Your task to perform on an android device: Show the shopping cart on amazon.com. Search for logitech g933 on amazon.com, select the first entry, and add it to the cart. Image 0: 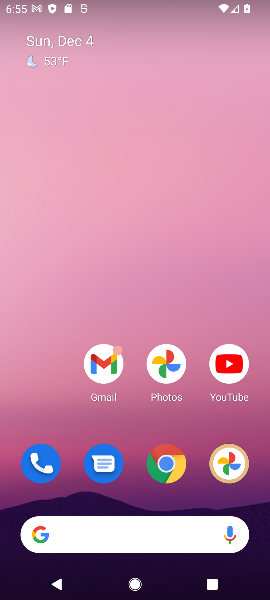
Step 0: click (134, 544)
Your task to perform on an android device: Show the shopping cart on amazon.com. Search for logitech g933 on amazon.com, select the first entry, and add it to the cart. Image 1: 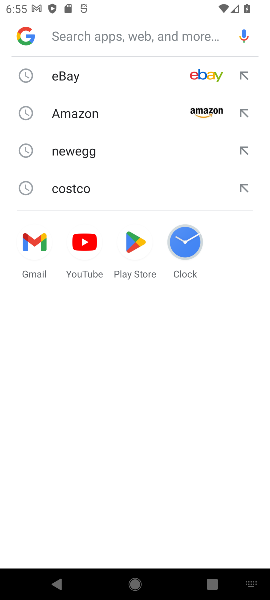
Step 1: type "amazon.com"
Your task to perform on an android device: Show the shopping cart on amazon.com. Search for logitech g933 on amazon.com, select the first entry, and add it to the cart. Image 2: 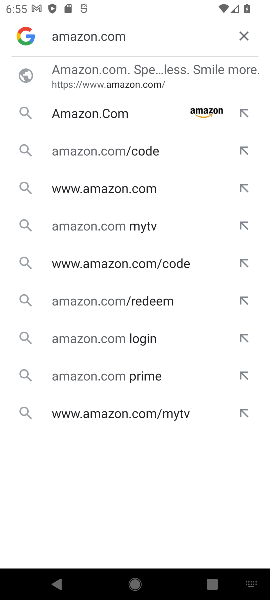
Step 2: click (143, 79)
Your task to perform on an android device: Show the shopping cart on amazon.com. Search for logitech g933 on amazon.com, select the first entry, and add it to the cart. Image 3: 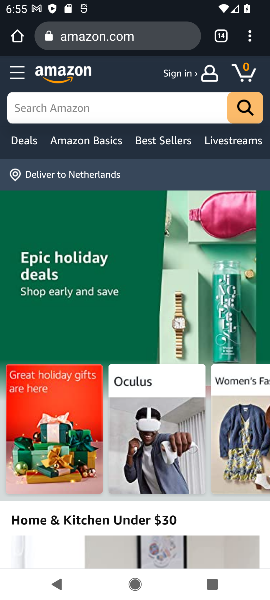
Step 3: click (149, 110)
Your task to perform on an android device: Show the shopping cart on amazon.com. Search for logitech g933 on amazon.com, select the first entry, and add it to the cart. Image 4: 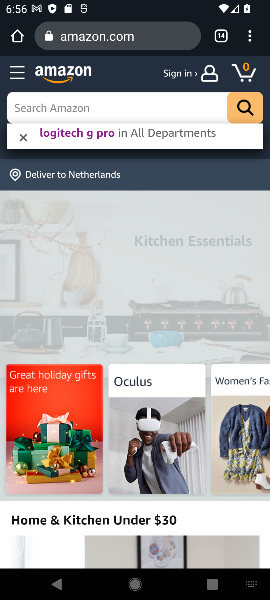
Step 4: type "logitech g933"
Your task to perform on an android device: Show the shopping cart on amazon.com. Search for logitech g933 on amazon.com, select the first entry, and add it to the cart. Image 5: 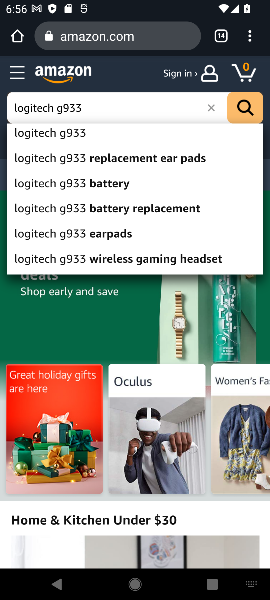
Step 5: click (241, 110)
Your task to perform on an android device: Show the shopping cart on amazon.com. Search for logitech g933 on amazon.com, select the first entry, and add it to the cart. Image 6: 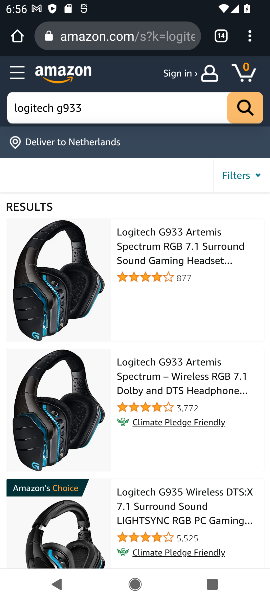
Step 6: click (200, 240)
Your task to perform on an android device: Show the shopping cart on amazon.com. Search for logitech g933 on amazon.com, select the first entry, and add it to the cart. Image 7: 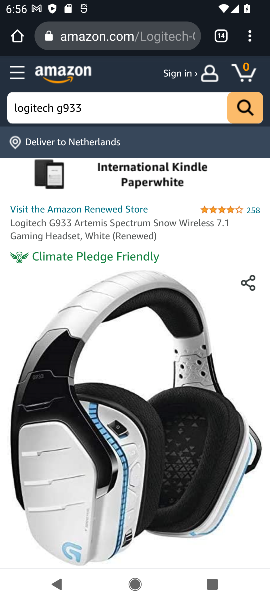
Step 7: drag from (195, 498) to (121, 158)
Your task to perform on an android device: Show the shopping cart on amazon.com. Search for logitech g933 on amazon.com, select the first entry, and add it to the cart. Image 8: 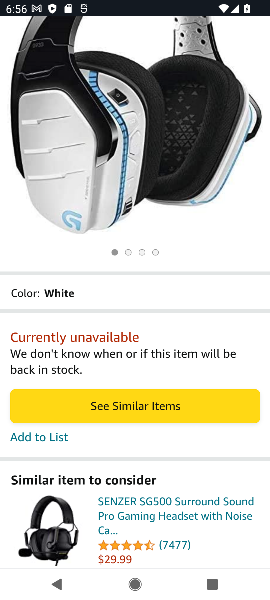
Step 8: click (147, 414)
Your task to perform on an android device: Show the shopping cart on amazon.com. Search for logitech g933 on amazon.com, select the first entry, and add it to the cart. Image 9: 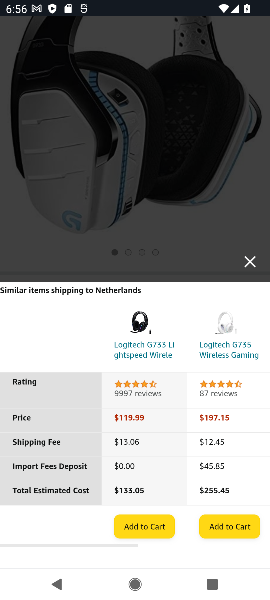
Step 9: task complete